Your task to perform on an android device: Add usb-a to usb-b to the cart on bestbuy, then select checkout. Image 0: 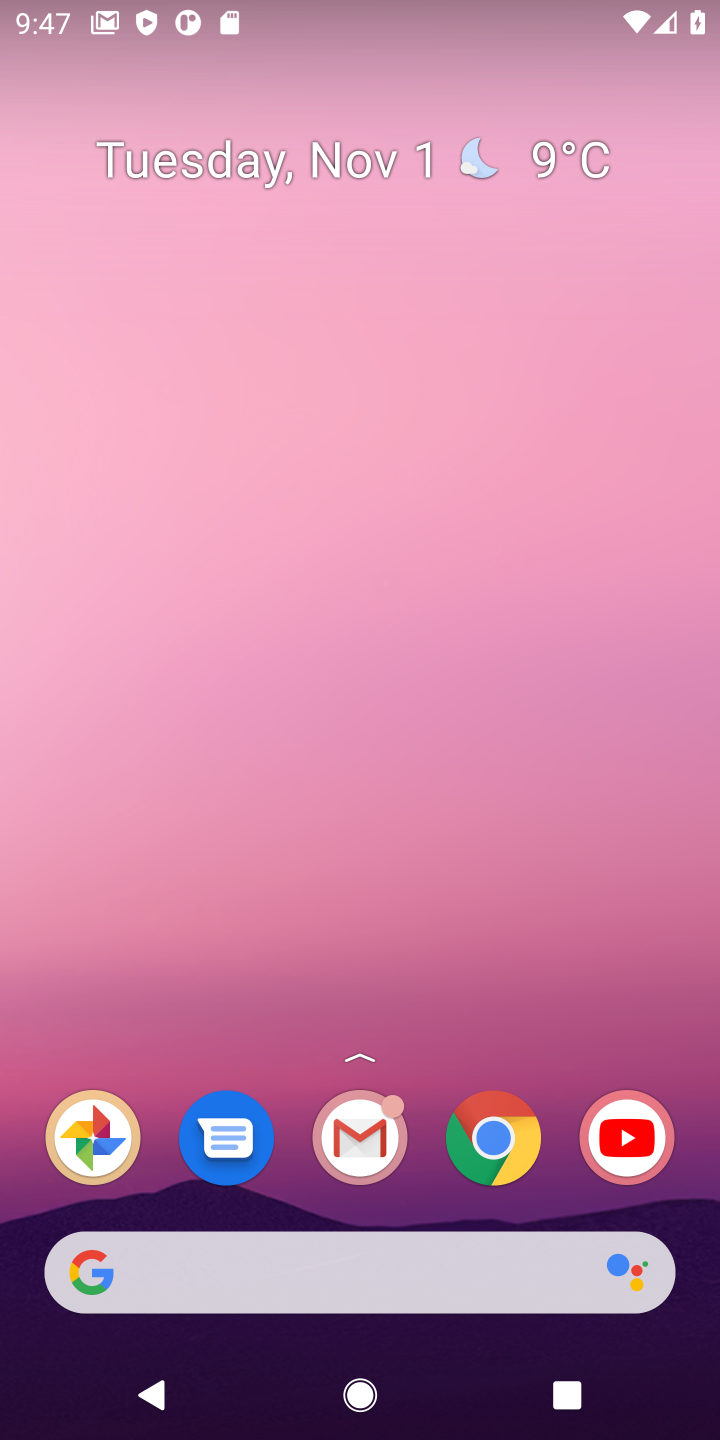
Step 0: click (497, 1134)
Your task to perform on an android device: Add usb-a to usb-b to the cart on bestbuy, then select checkout. Image 1: 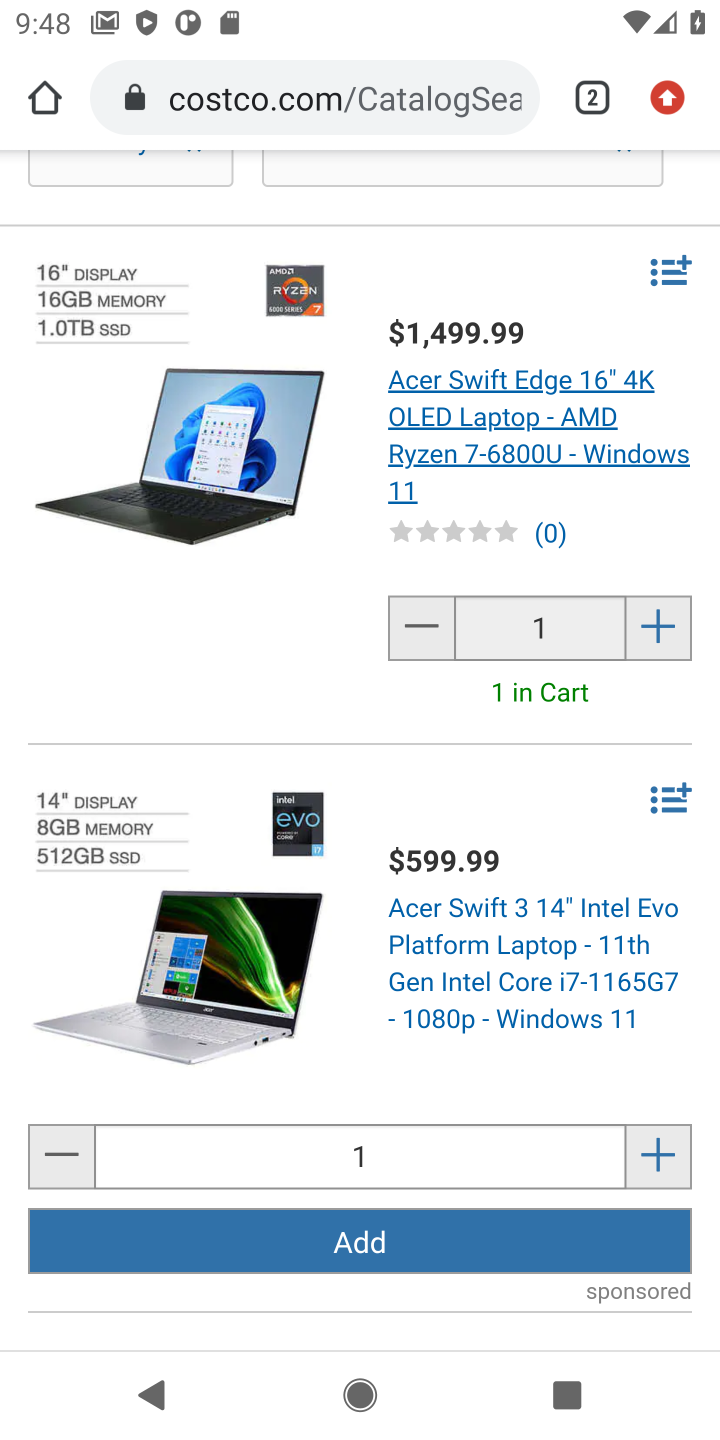
Step 1: click (595, 98)
Your task to perform on an android device: Add usb-a to usb-b to the cart on bestbuy, then select checkout. Image 2: 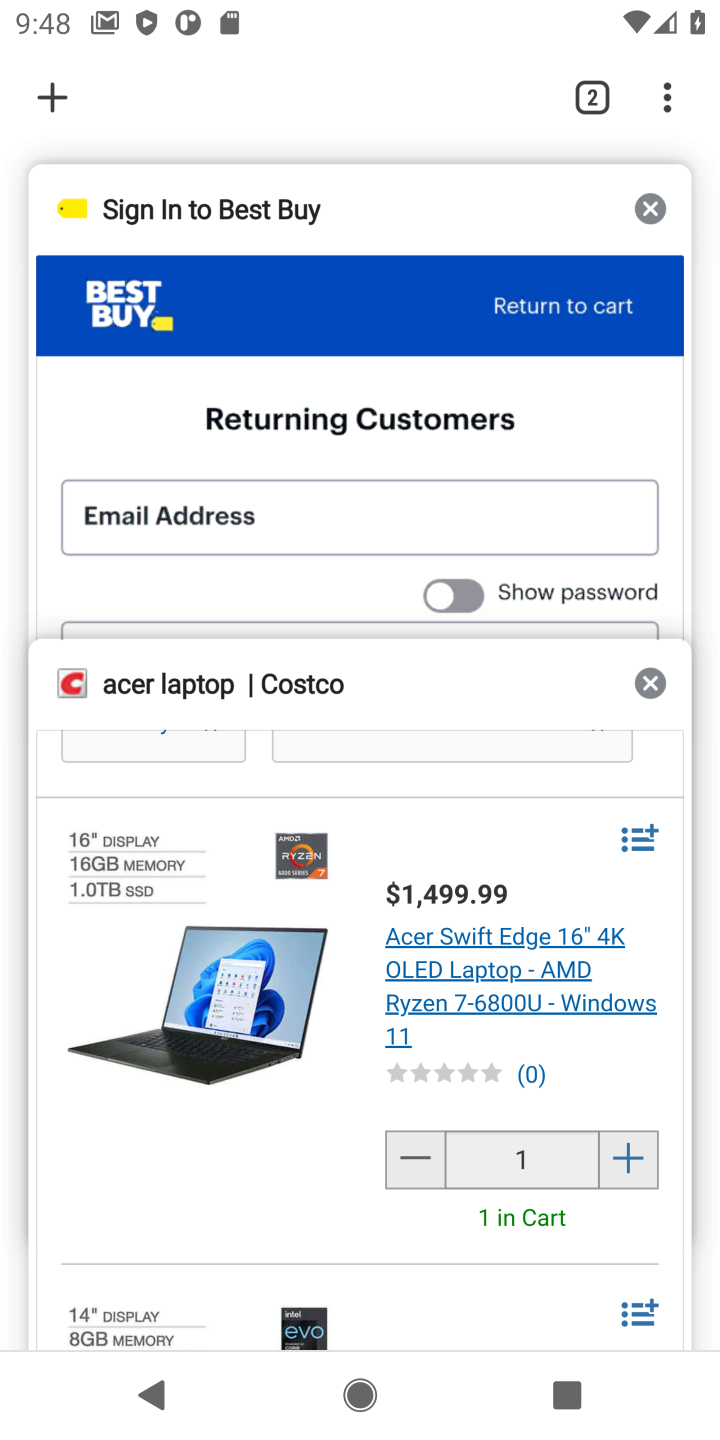
Step 2: click (395, 294)
Your task to perform on an android device: Add usb-a to usb-b to the cart on bestbuy, then select checkout. Image 3: 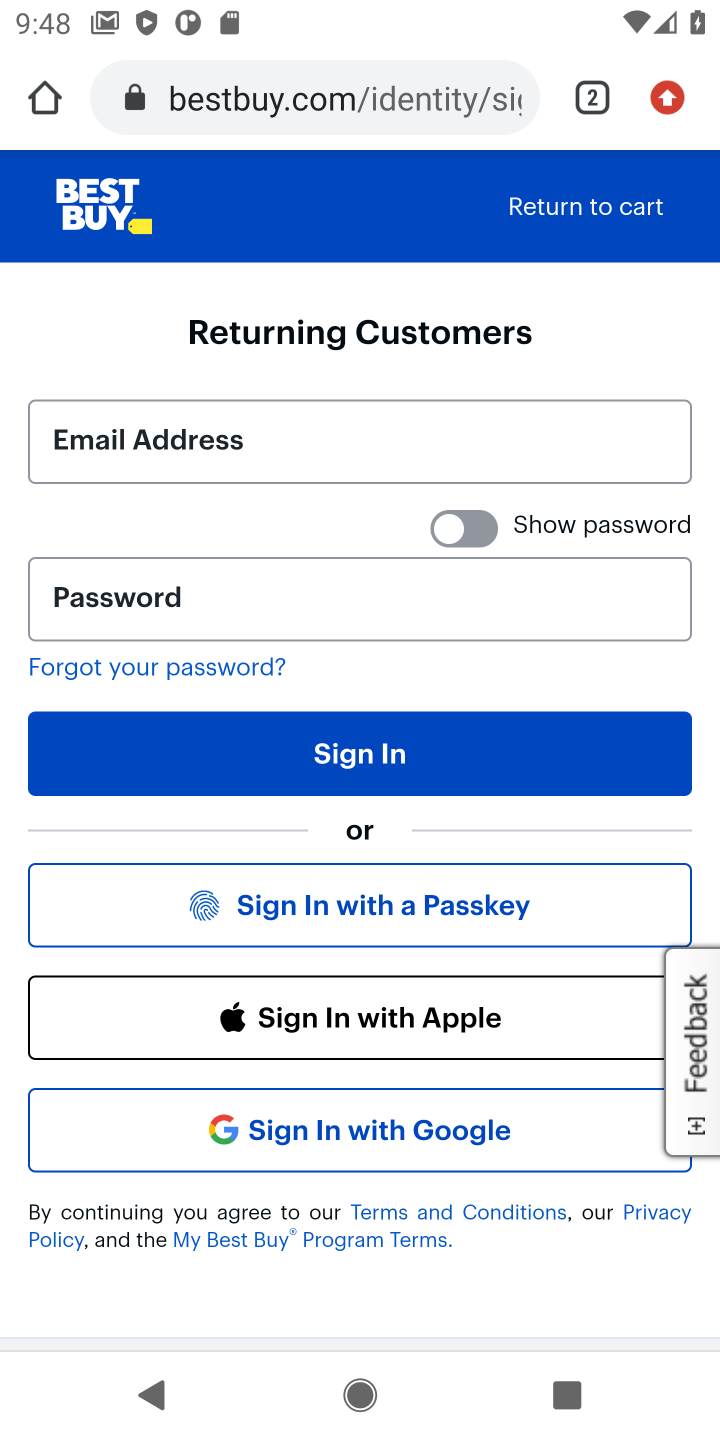
Step 3: click (571, 206)
Your task to perform on an android device: Add usb-a to usb-b to the cart on bestbuy, then select checkout. Image 4: 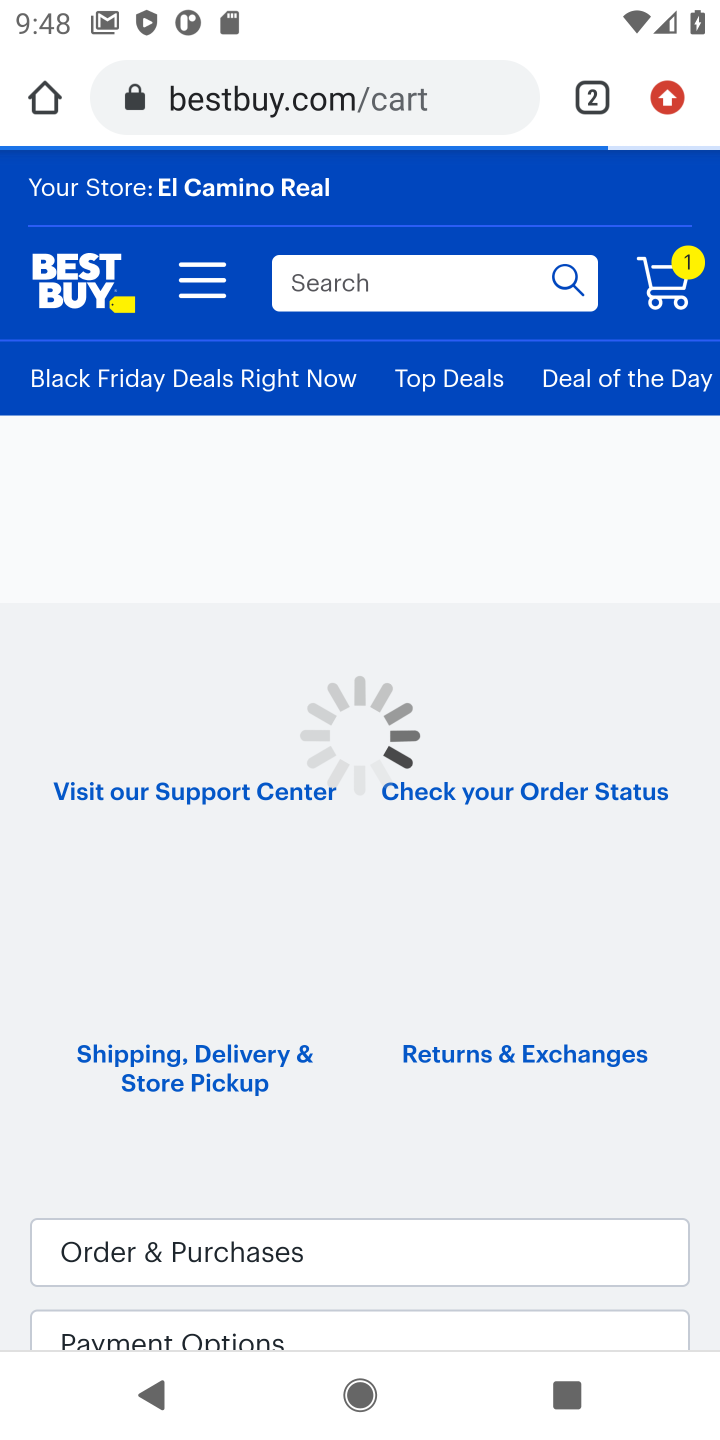
Step 4: click (401, 291)
Your task to perform on an android device: Add usb-a to usb-b to the cart on bestbuy, then select checkout. Image 5: 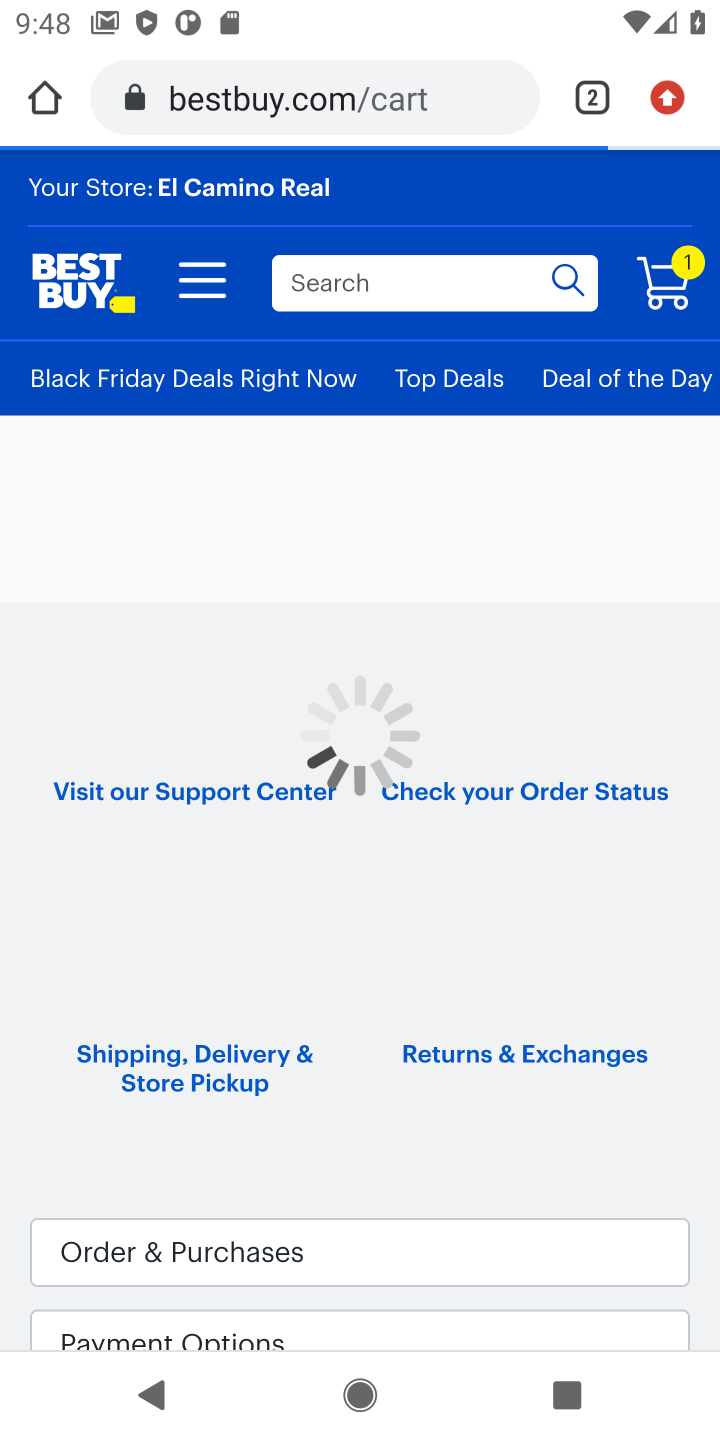
Step 5: type "usb-a to usb-b"
Your task to perform on an android device: Add usb-a to usb-b to the cart on bestbuy, then select checkout. Image 6: 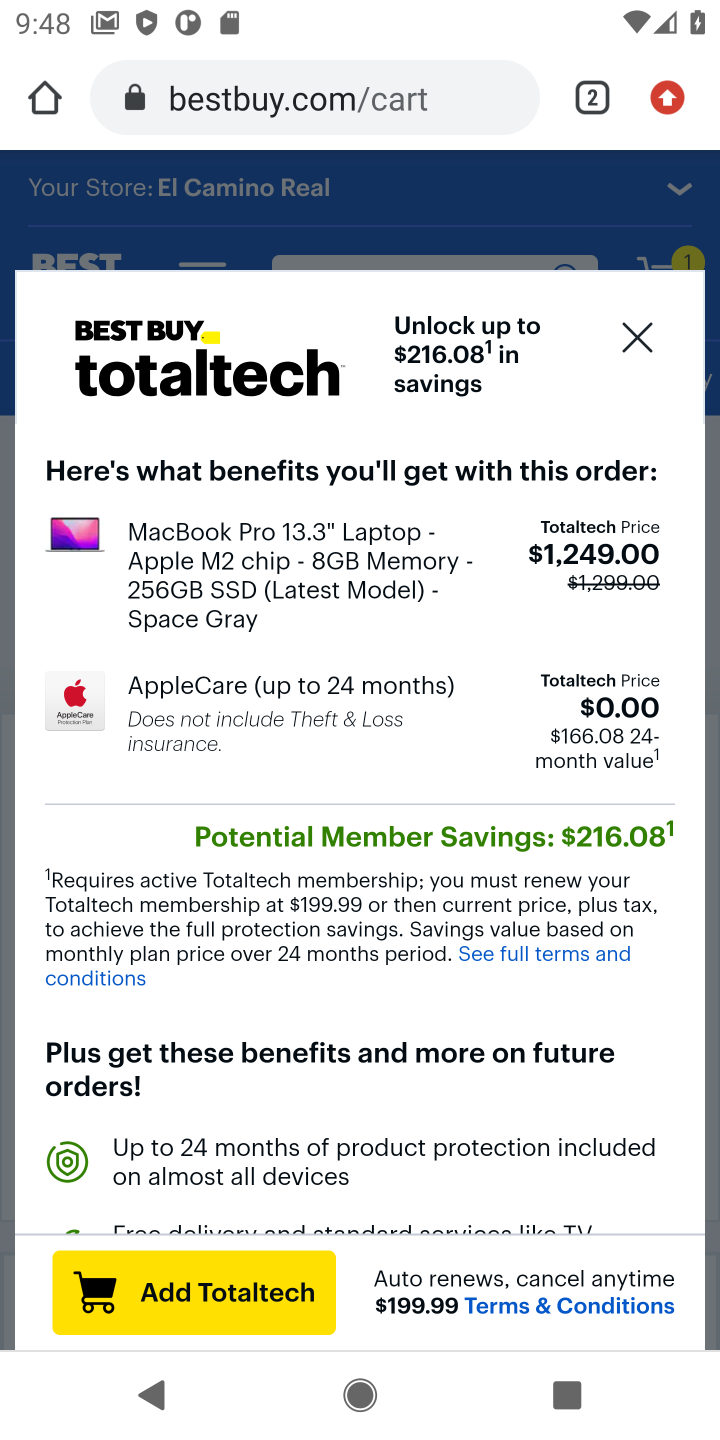
Step 6: click (640, 340)
Your task to perform on an android device: Add usb-a to usb-b to the cart on bestbuy, then select checkout. Image 7: 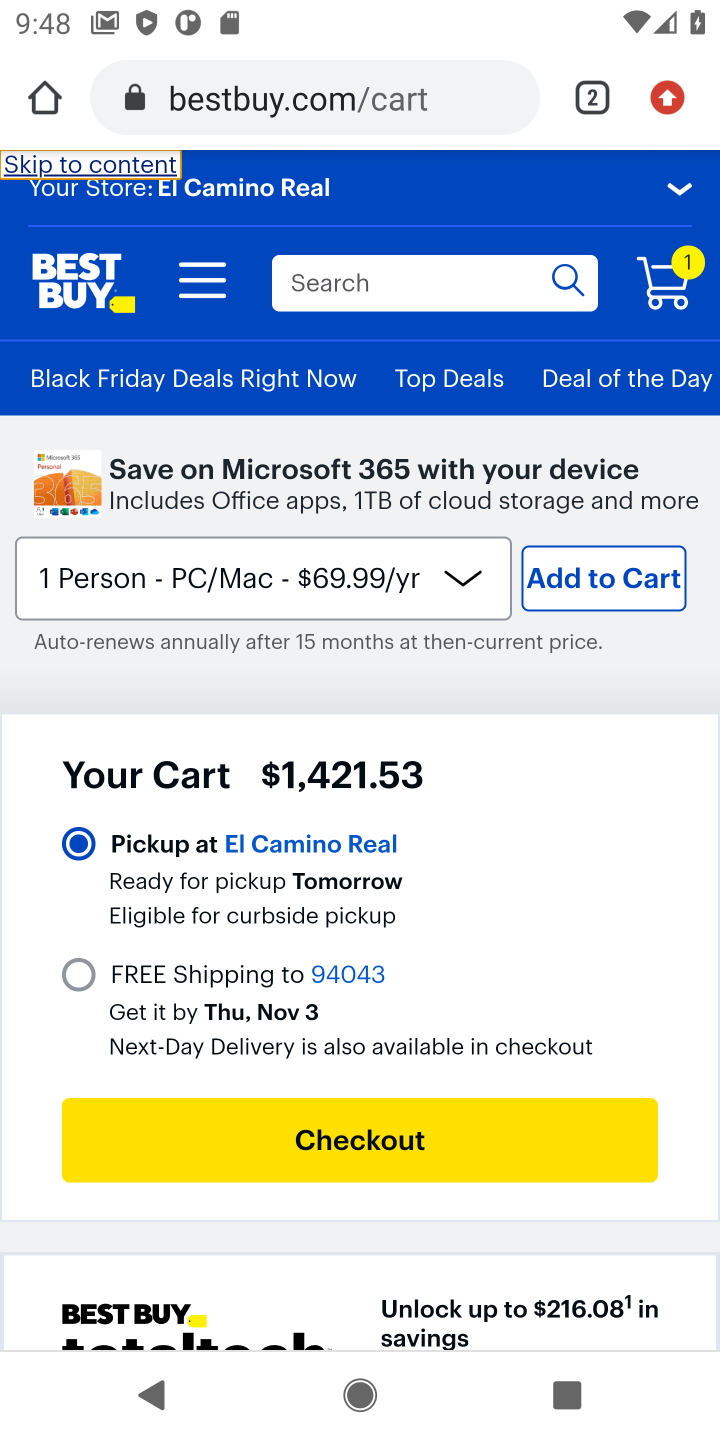
Step 7: click (429, 275)
Your task to perform on an android device: Add usb-a to usb-b to the cart on bestbuy, then select checkout. Image 8: 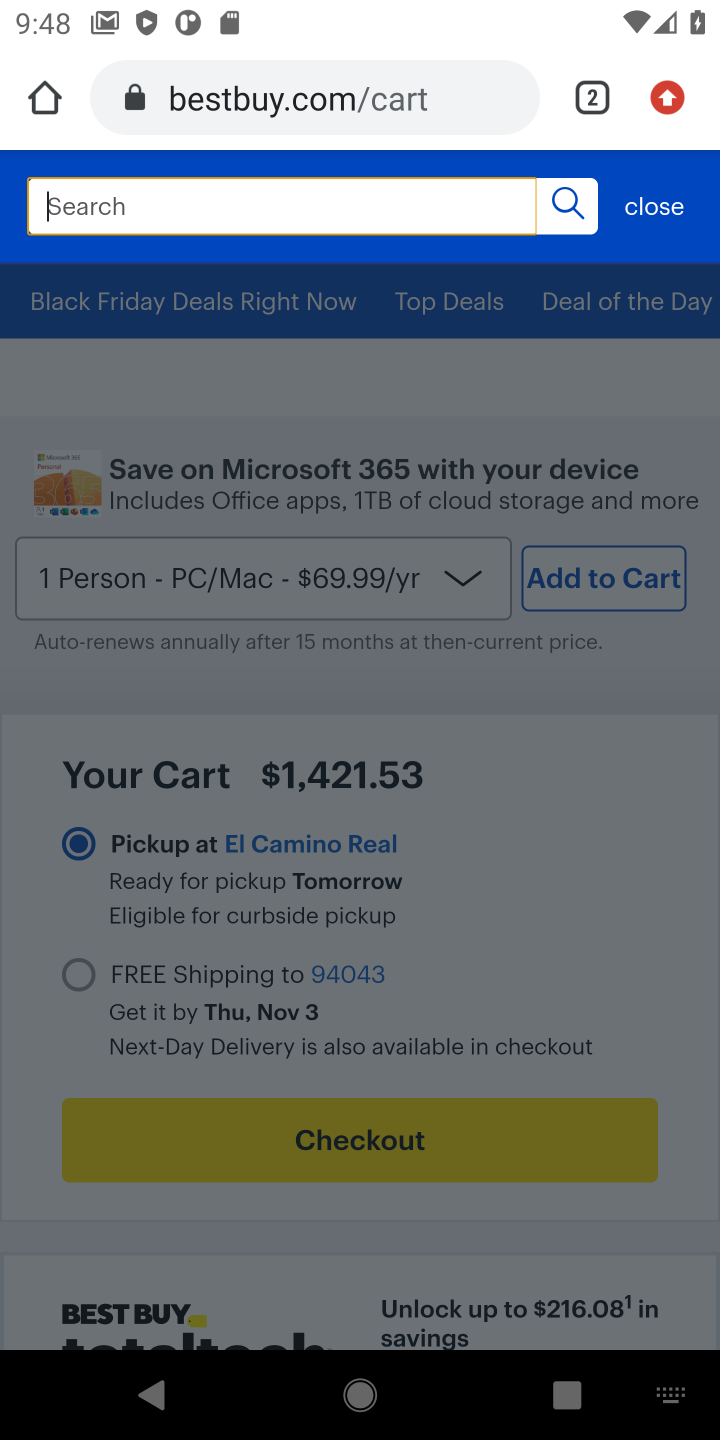
Step 8: type "usb-a to usb-b"
Your task to perform on an android device: Add usb-a to usb-b to the cart on bestbuy, then select checkout. Image 9: 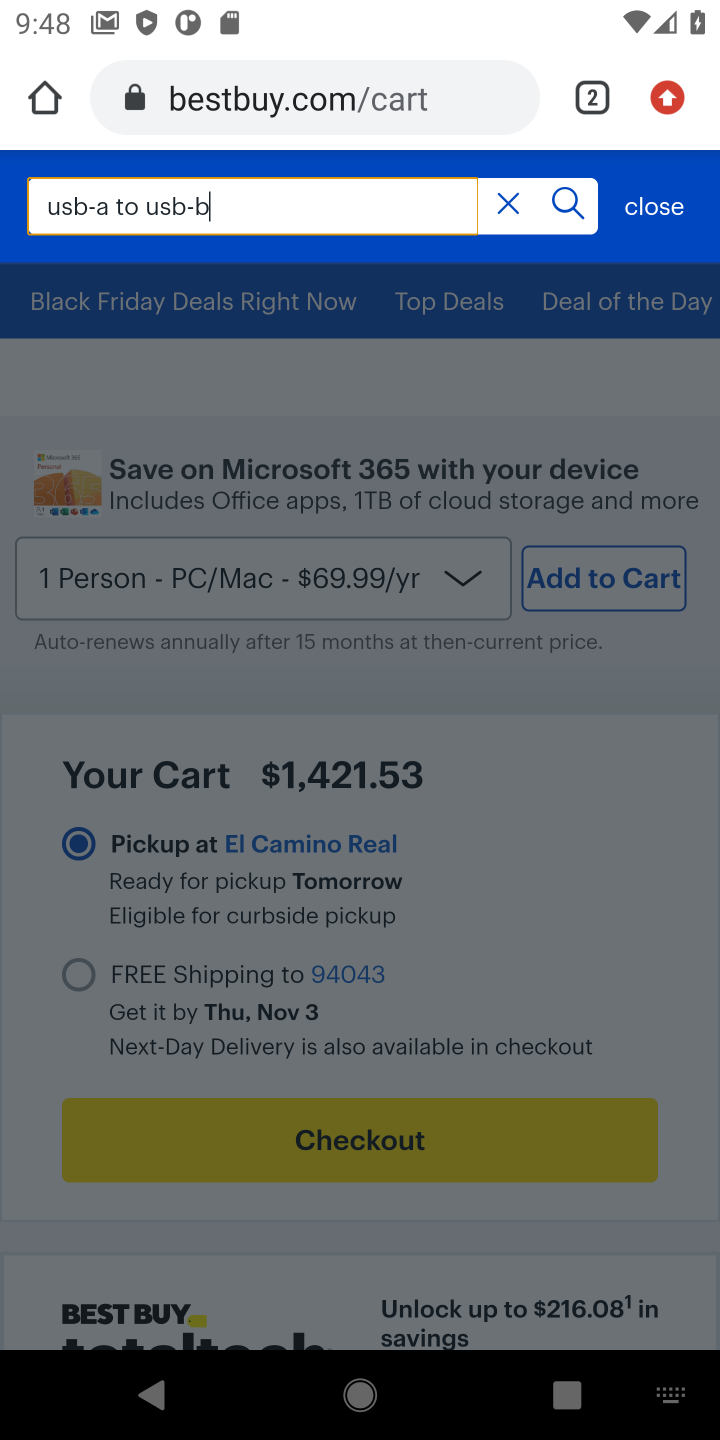
Step 9: click (575, 201)
Your task to perform on an android device: Add usb-a to usb-b to the cart on bestbuy, then select checkout. Image 10: 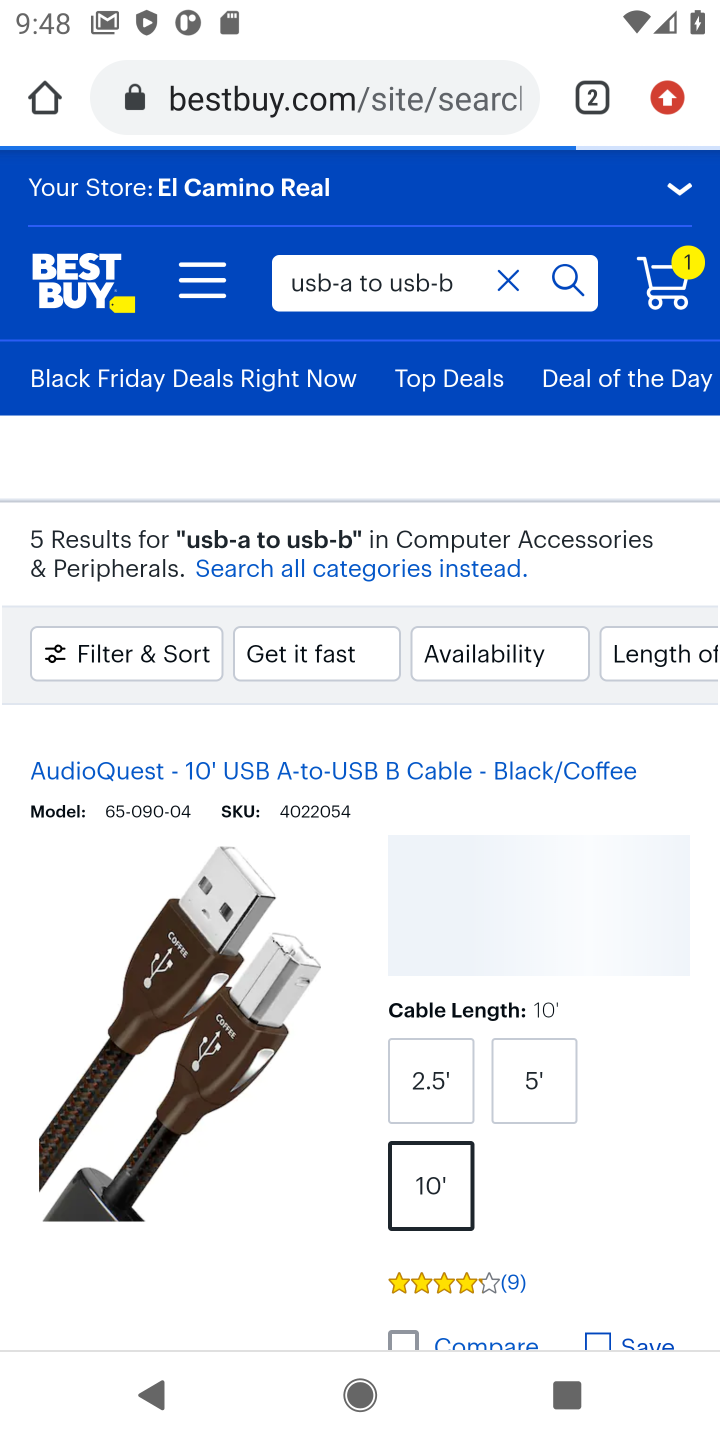
Step 10: drag from (524, 1189) to (552, 700)
Your task to perform on an android device: Add usb-a to usb-b to the cart on bestbuy, then select checkout. Image 11: 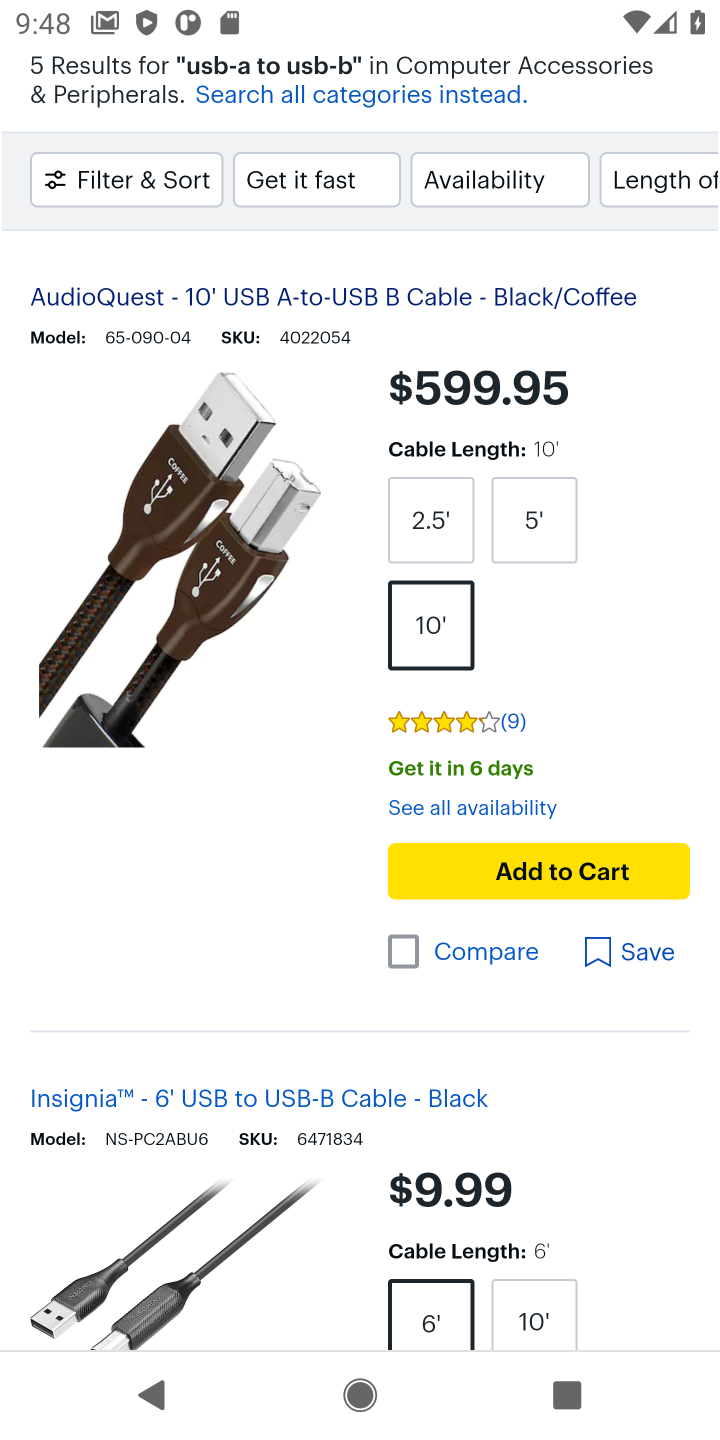
Step 11: click (541, 863)
Your task to perform on an android device: Add usb-a to usb-b to the cart on bestbuy, then select checkout. Image 12: 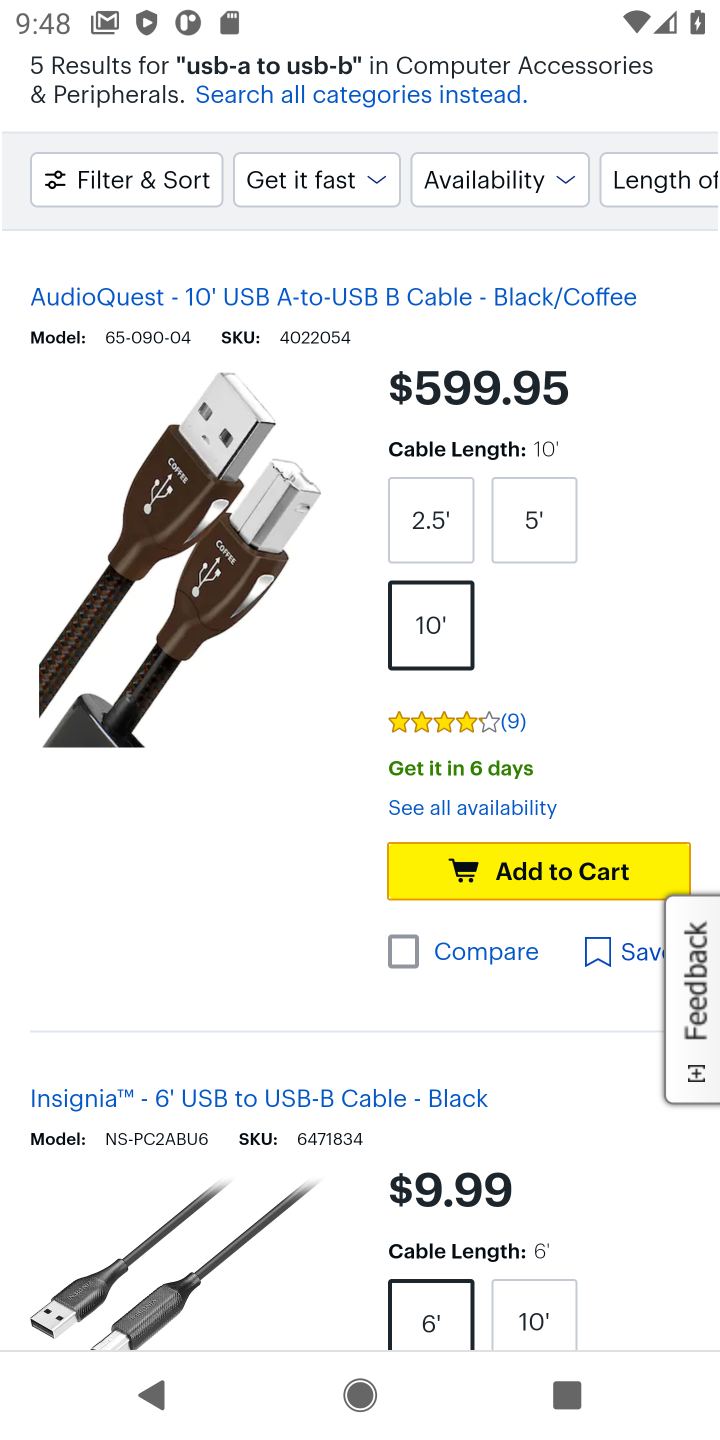
Step 12: click (541, 863)
Your task to perform on an android device: Add usb-a to usb-b to the cart on bestbuy, then select checkout. Image 13: 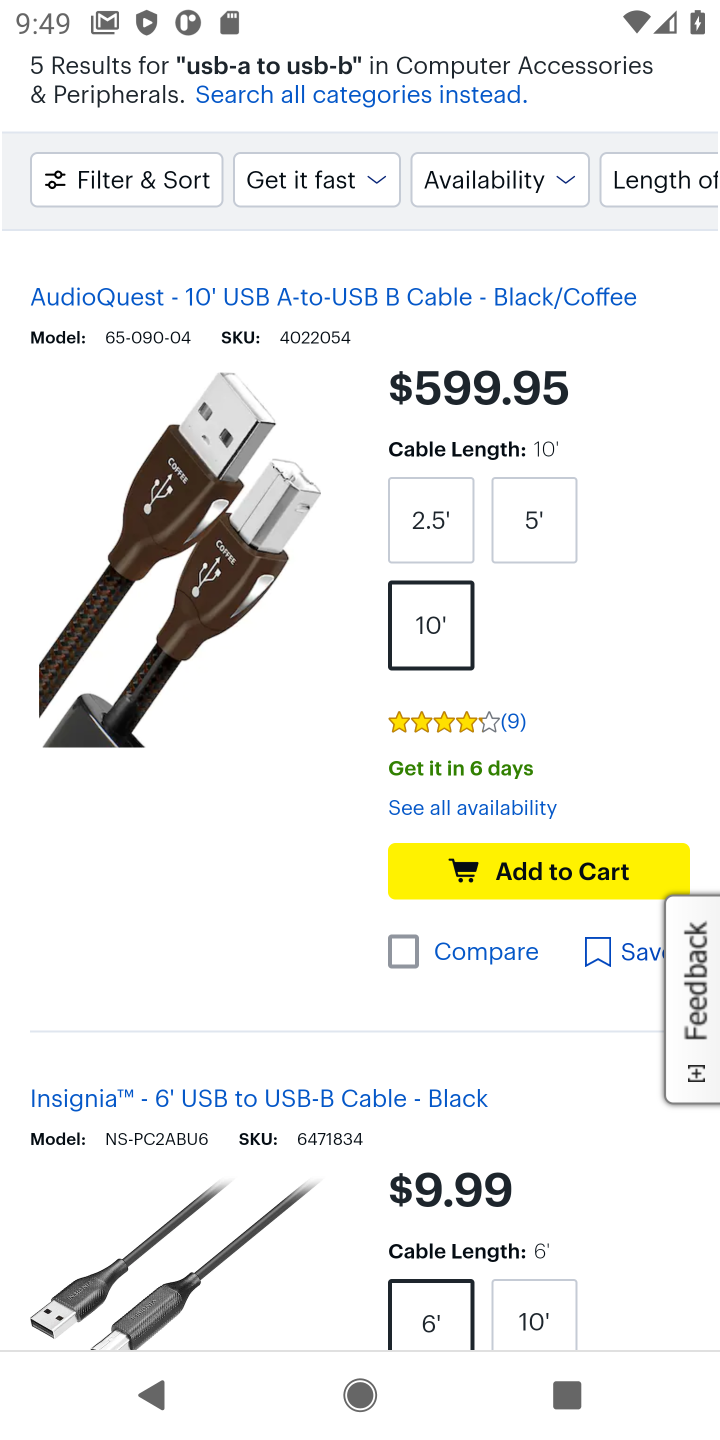
Step 13: drag from (613, 597) to (578, 1217)
Your task to perform on an android device: Add usb-a to usb-b to the cart on bestbuy, then select checkout. Image 14: 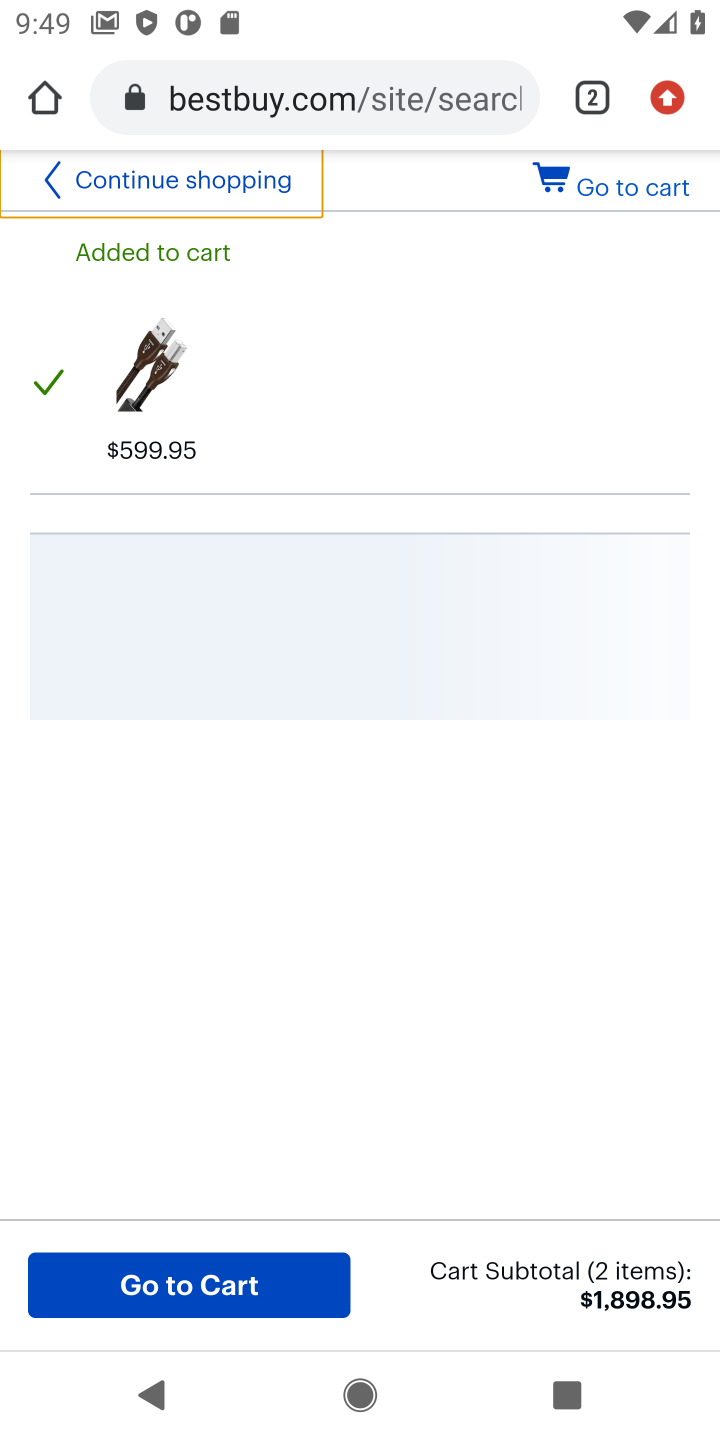
Step 14: click (182, 1274)
Your task to perform on an android device: Add usb-a to usb-b to the cart on bestbuy, then select checkout. Image 15: 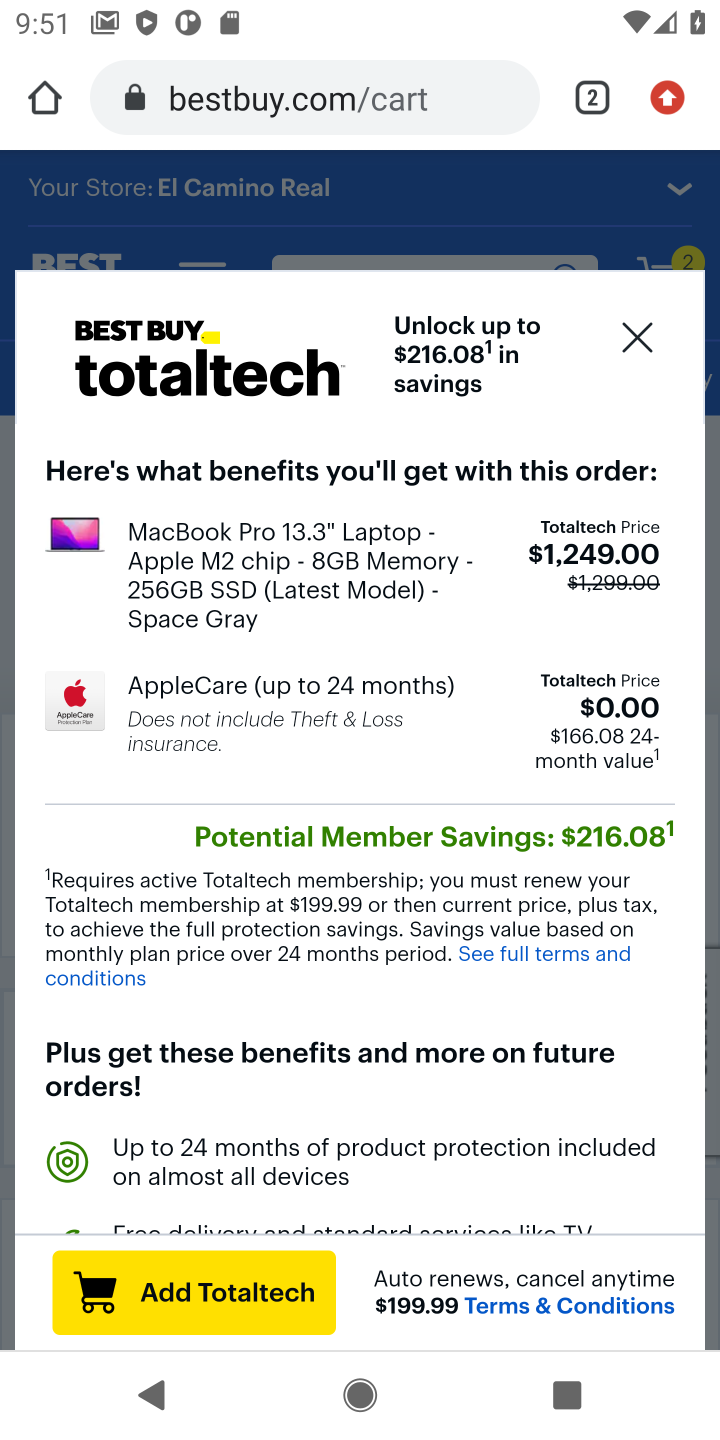
Step 15: click (628, 343)
Your task to perform on an android device: Add usb-a to usb-b to the cart on bestbuy, then select checkout. Image 16: 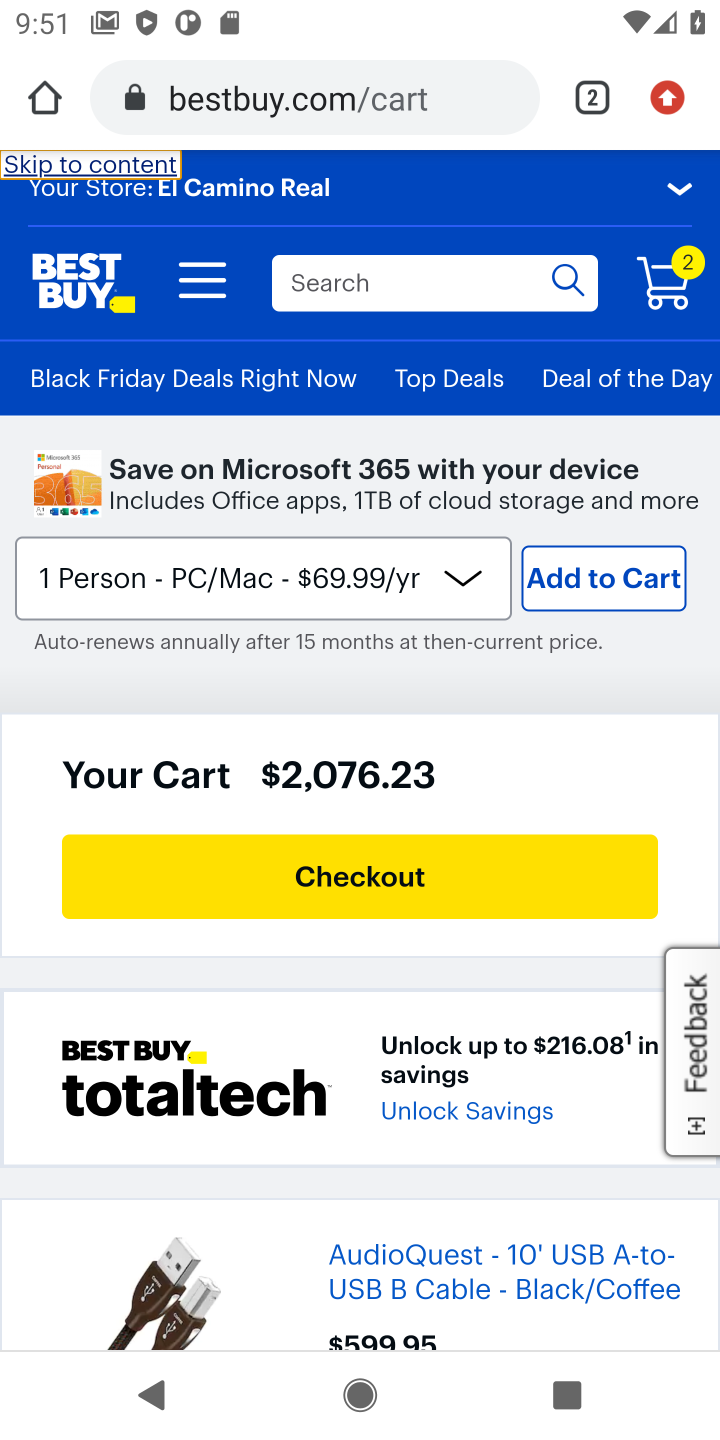
Step 16: click (370, 879)
Your task to perform on an android device: Add usb-a to usb-b to the cart on bestbuy, then select checkout. Image 17: 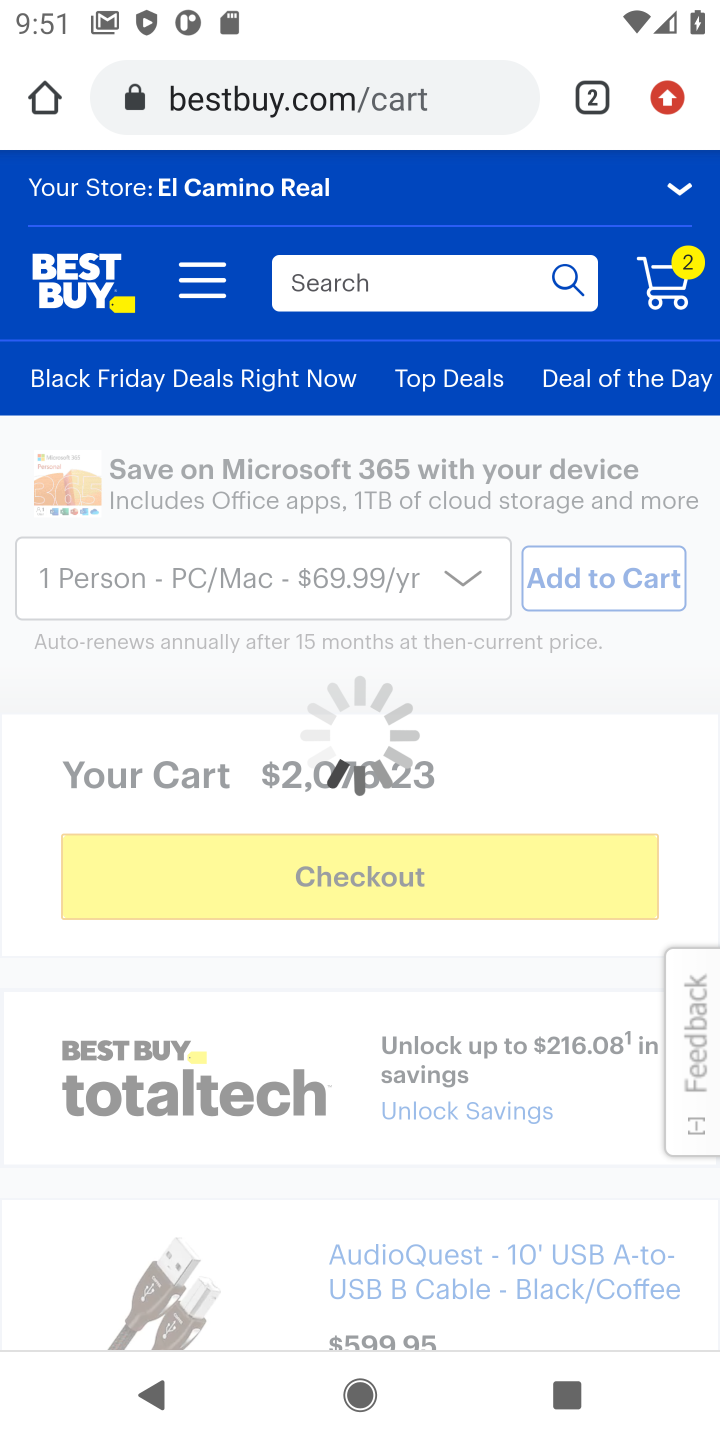
Step 17: task complete